Your task to perform on an android device: Show the shopping cart on ebay.com. Search for panasonic triple a on ebay.com, select the first entry, and add it to the cart. Image 0: 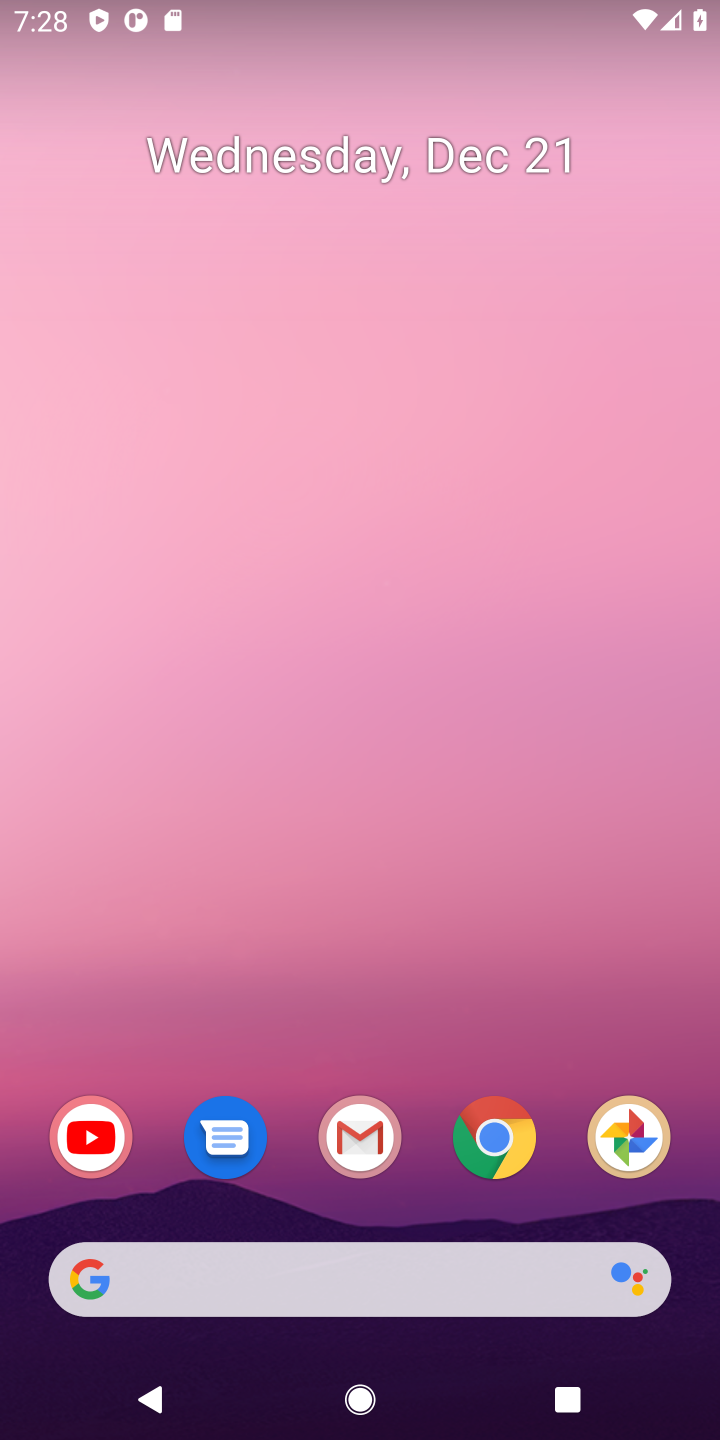
Step 0: click (487, 1150)
Your task to perform on an android device: Show the shopping cart on ebay.com. Search for panasonic triple a on ebay.com, select the first entry, and add it to the cart. Image 1: 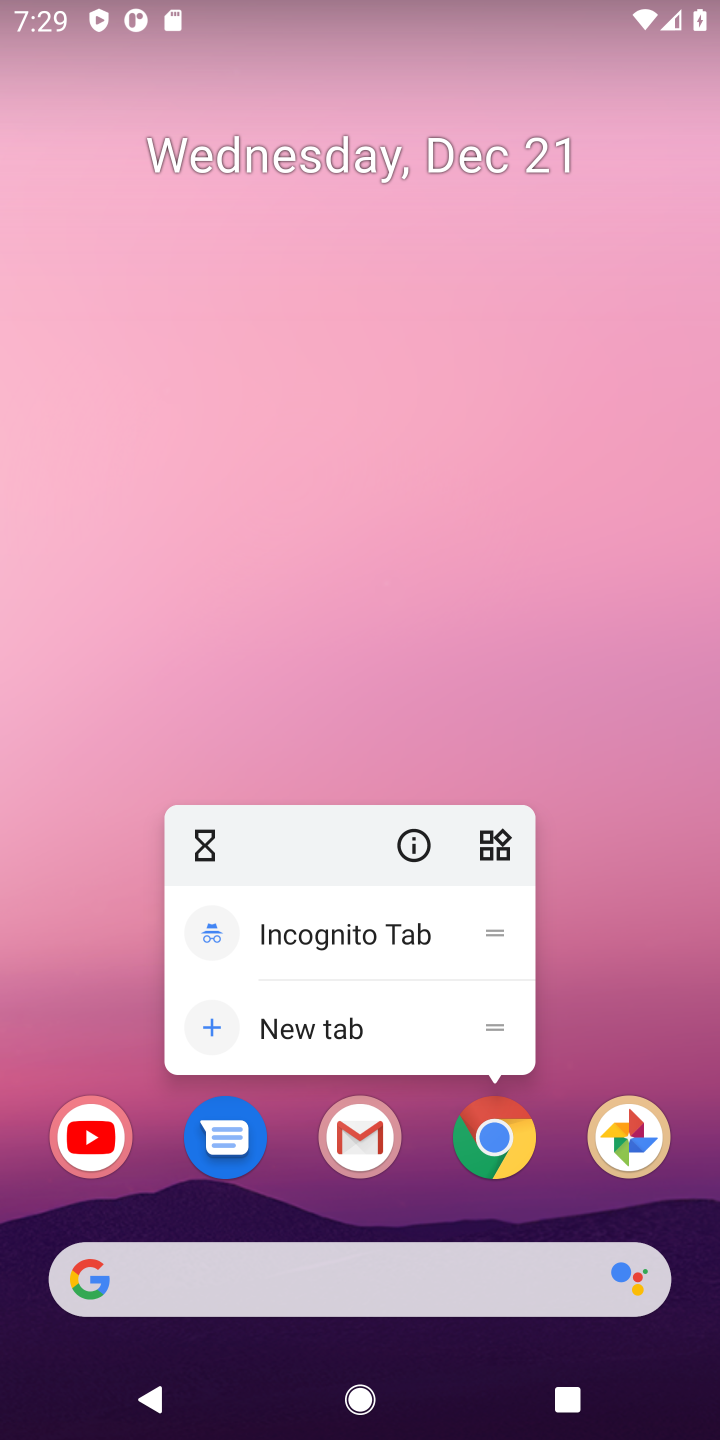
Step 1: click (488, 1150)
Your task to perform on an android device: Show the shopping cart on ebay.com. Search for panasonic triple a on ebay.com, select the first entry, and add it to the cart. Image 2: 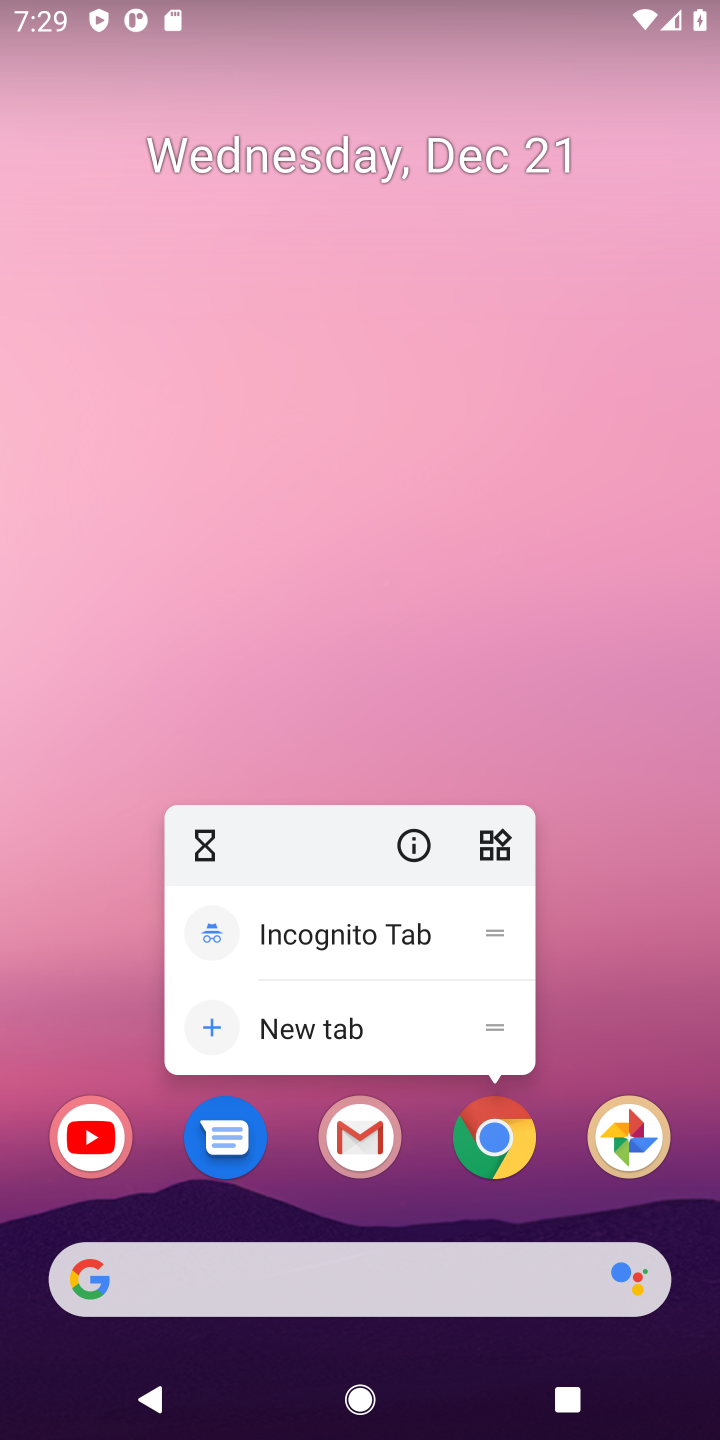
Step 2: click (486, 1157)
Your task to perform on an android device: Show the shopping cart on ebay.com. Search for panasonic triple a on ebay.com, select the first entry, and add it to the cart. Image 3: 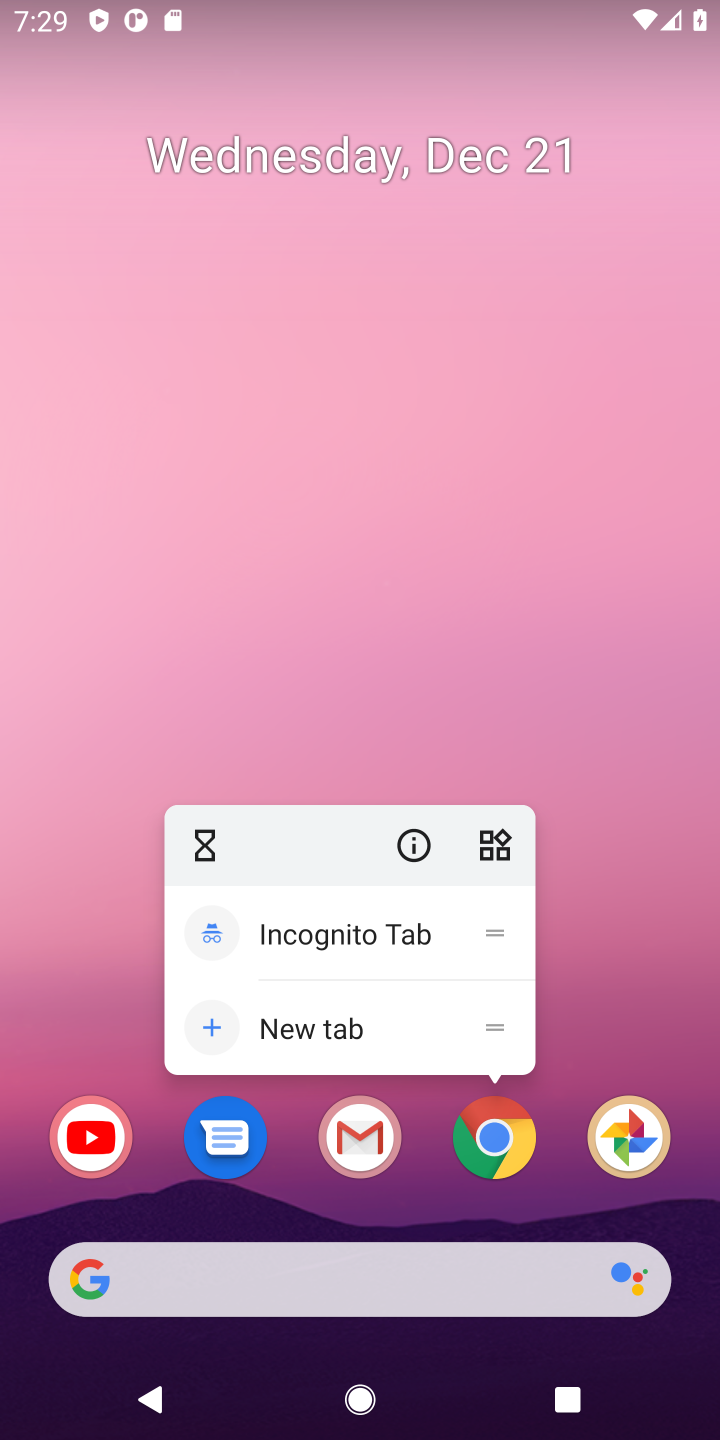
Step 3: click (518, 1135)
Your task to perform on an android device: Show the shopping cart on ebay.com. Search for panasonic triple a on ebay.com, select the first entry, and add it to the cart. Image 4: 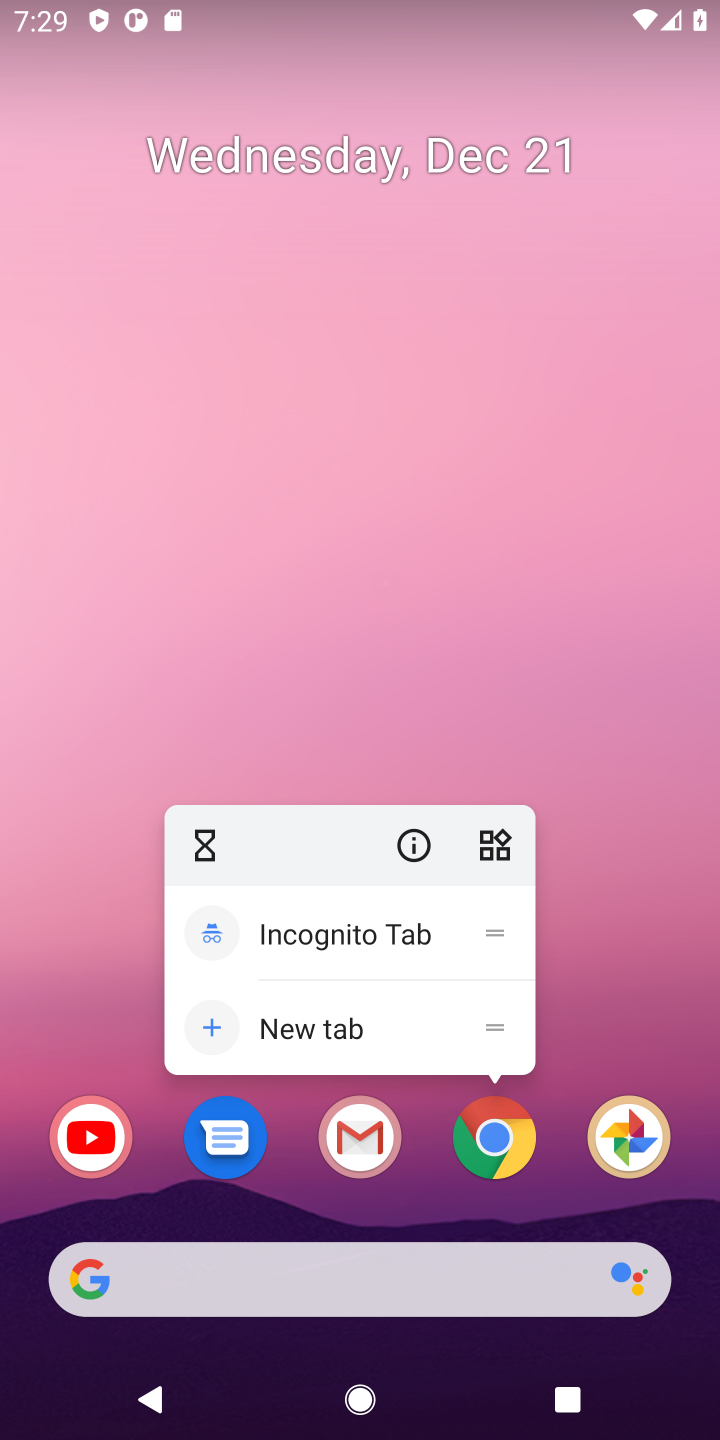
Step 4: click (497, 1137)
Your task to perform on an android device: Show the shopping cart on ebay.com. Search for panasonic triple a on ebay.com, select the first entry, and add it to the cart. Image 5: 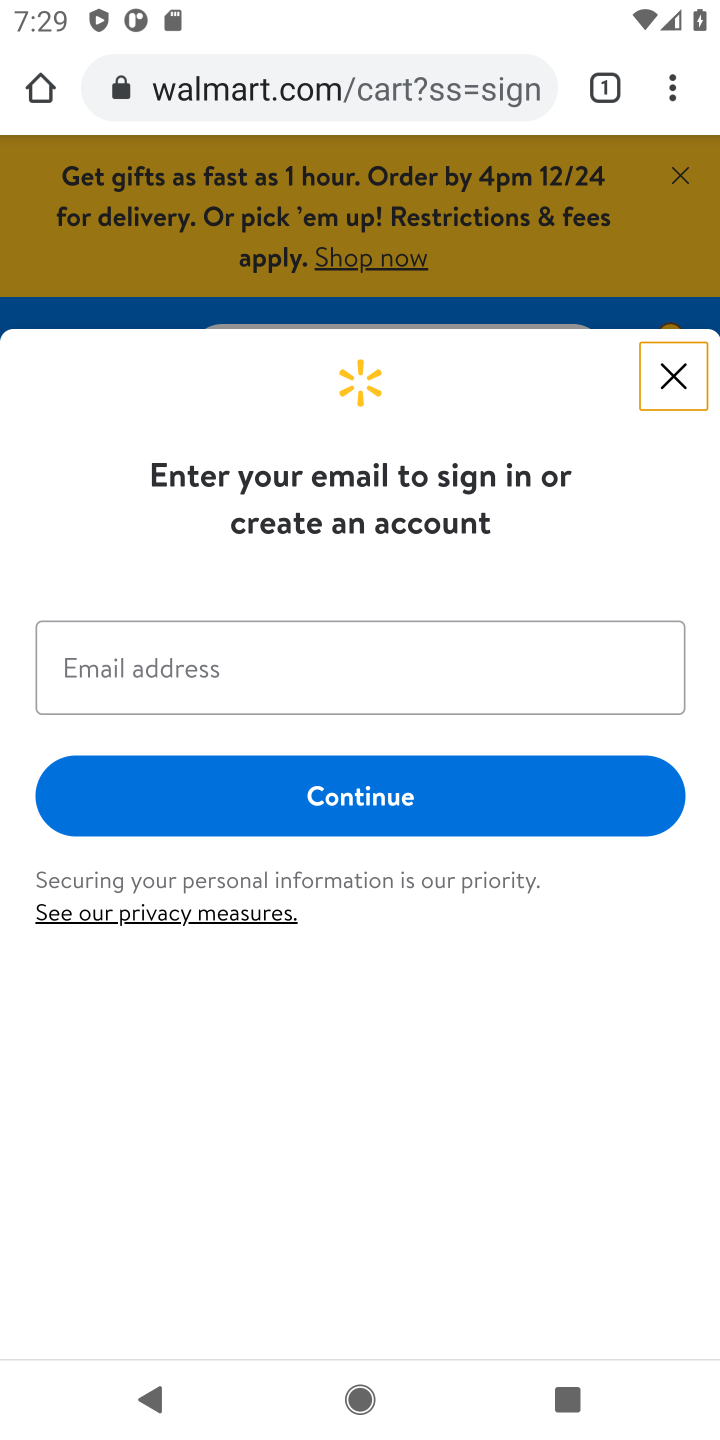
Step 5: click (199, 97)
Your task to perform on an android device: Show the shopping cart on ebay.com. Search for panasonic triple a on ebay.com, select the first entry, and add it to the cart. Image 6: 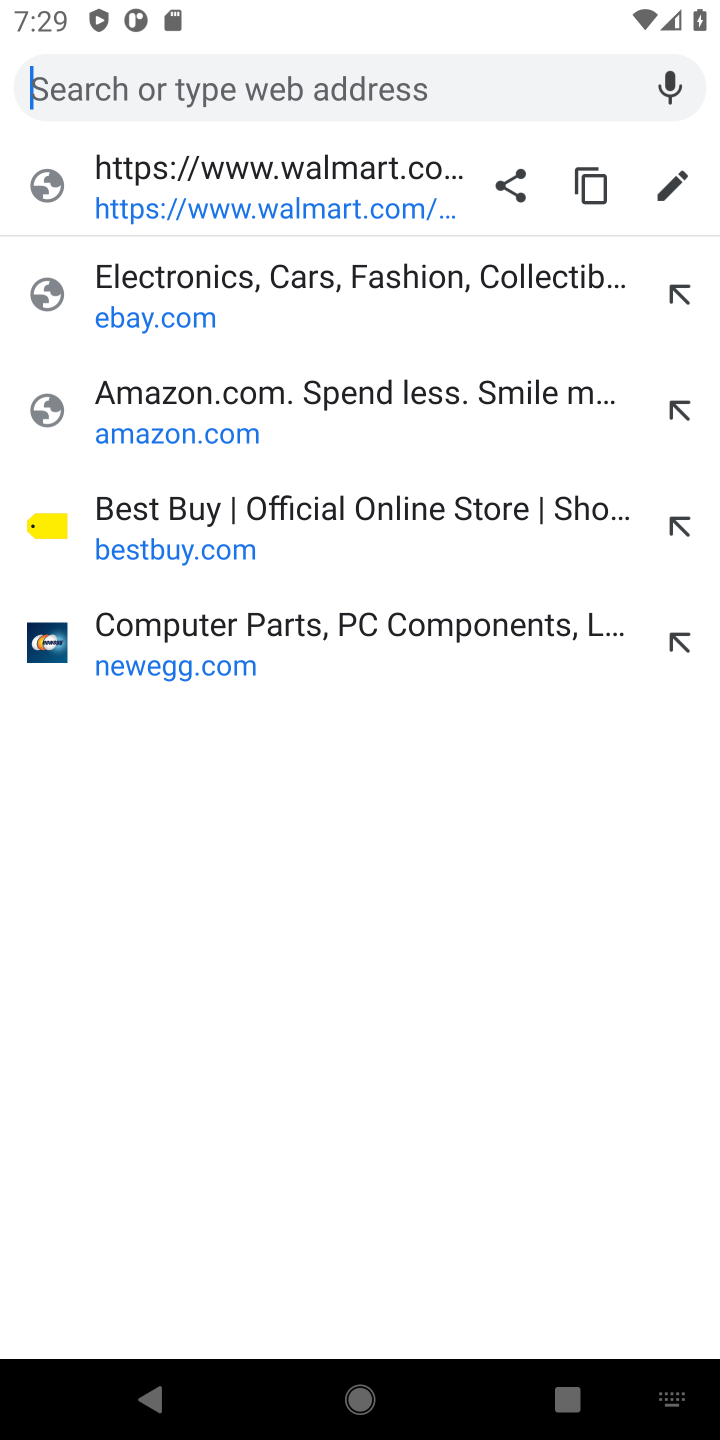
Step 6: click (139, 300)
Your task to perform on an android device: Show the shopping cart on ebay.com. Search for panasonic triple a on ebay.com, select the first entry, and add it to the cart. Image 7: 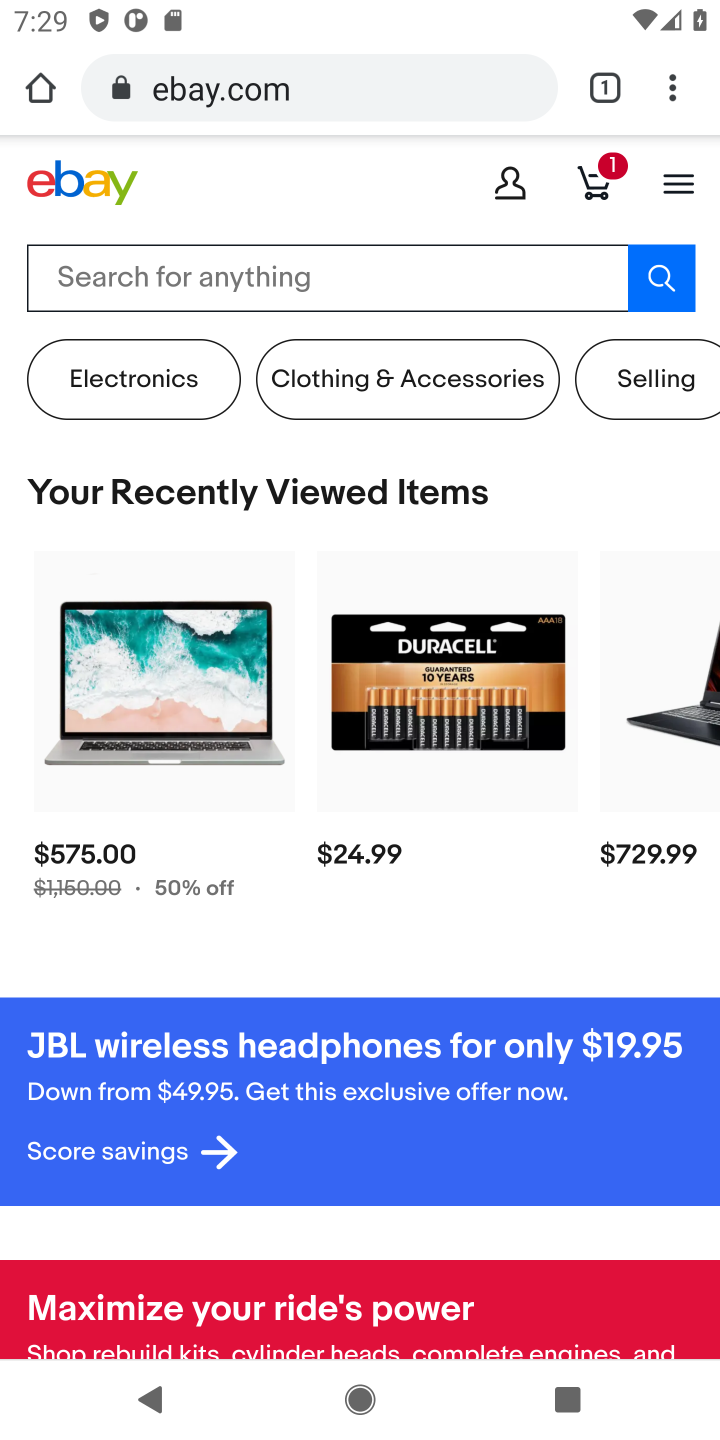
Step 7: click (599, 182)
Your task to perform on an android device: Show the shopping cart on ebay.com. Search for panasonic triple a on ebay.com, select the first entry, and add it to the cart. Image 8: 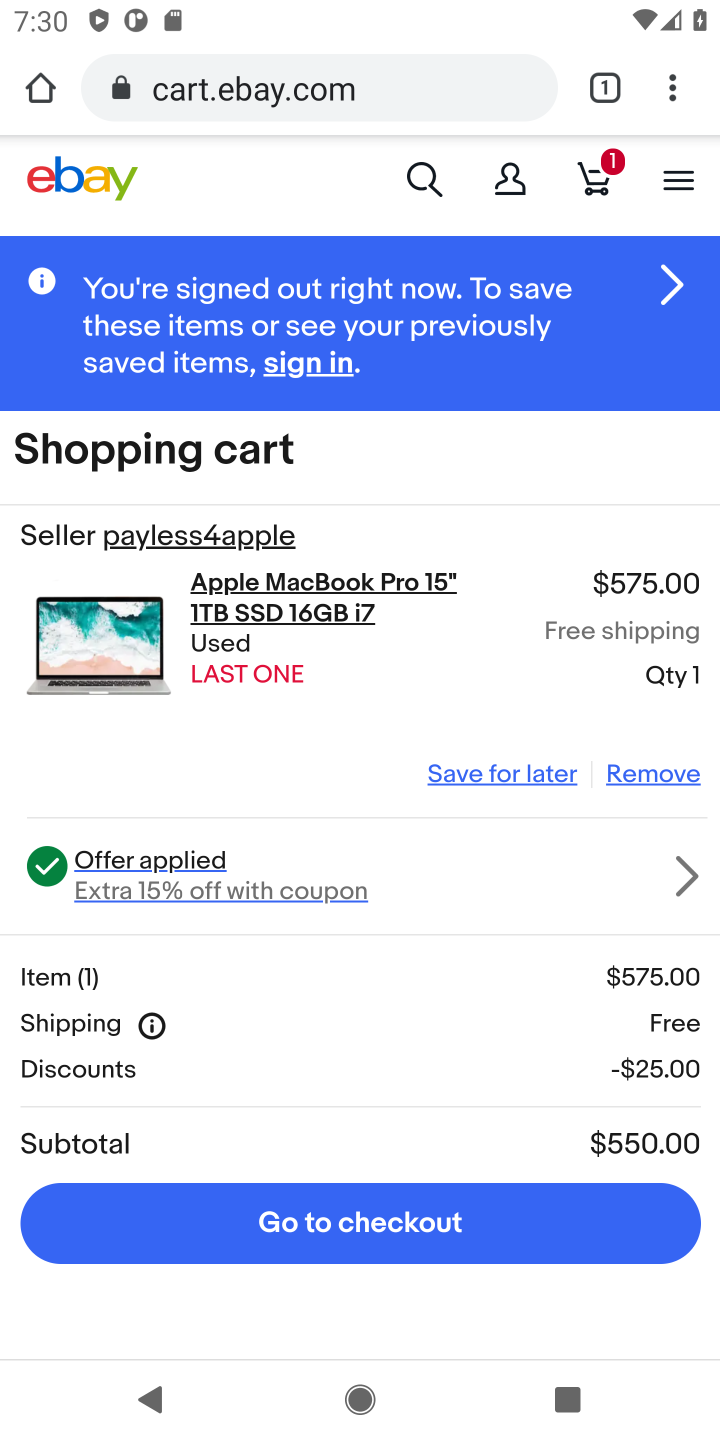
Step 8: click (427, 187)
Your task to perform on an android device: Show the shopping cart on ebay.com. Search for panasonic triple a on ebay.com, select the first entry, and add it to the cart. Image 9: 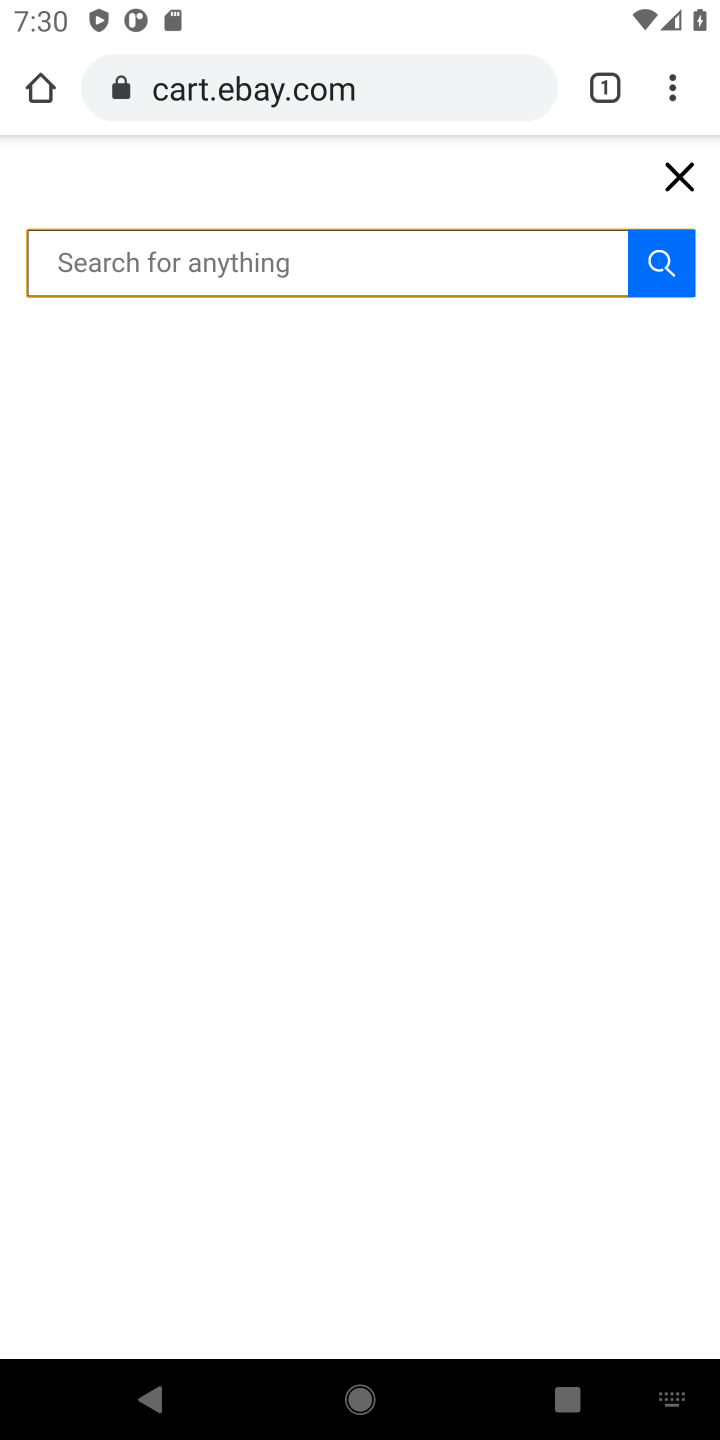
Step 9: type "panasonic triple a"
Your task to perform on an android device: Show the shopping cart on ebay.com. Search for panasonic triple a on ebay.com, select the first entry, and add it to the cart. Image 10: 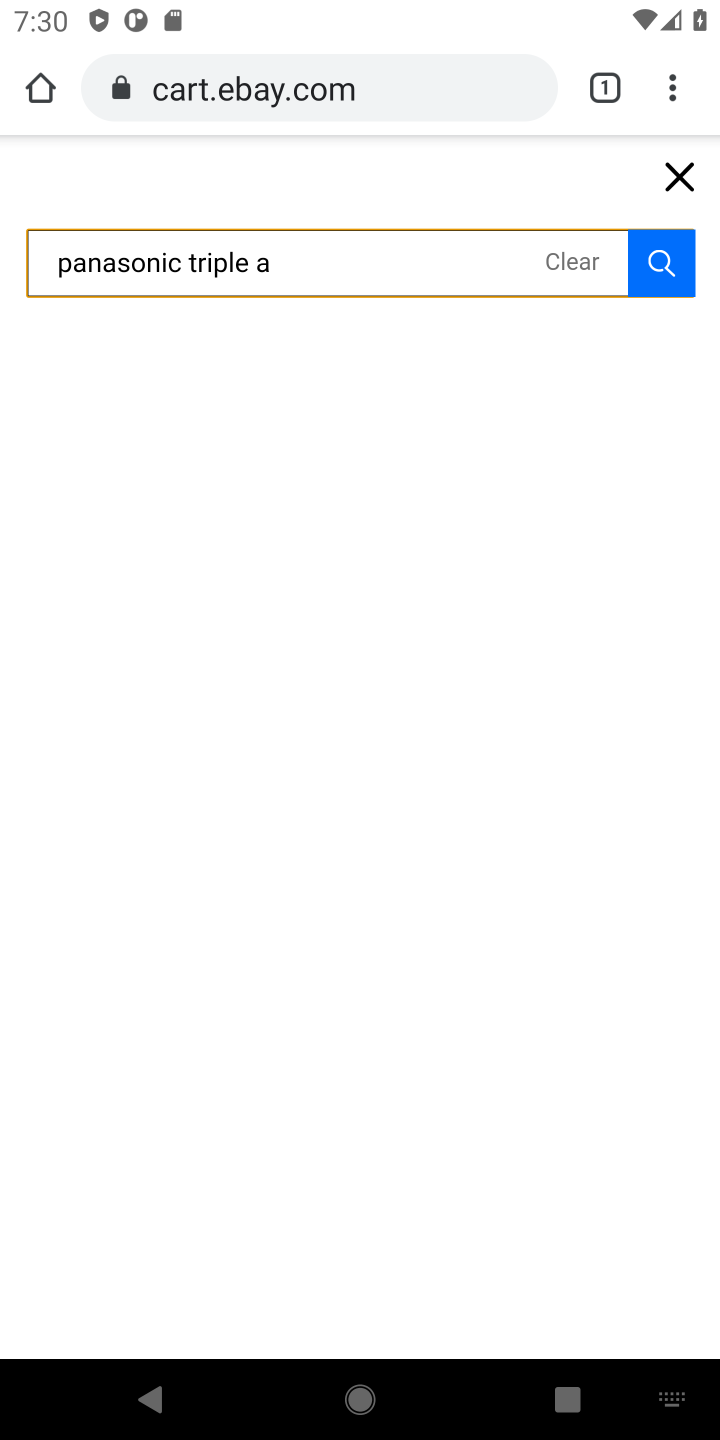
Step 10: click (660, 280)
Your task to perform on an android device: Show the shopping cart on ebay.com. Search for panasonic triple a on ebay.com, select the first entry, and add it to the cart. Image 11: 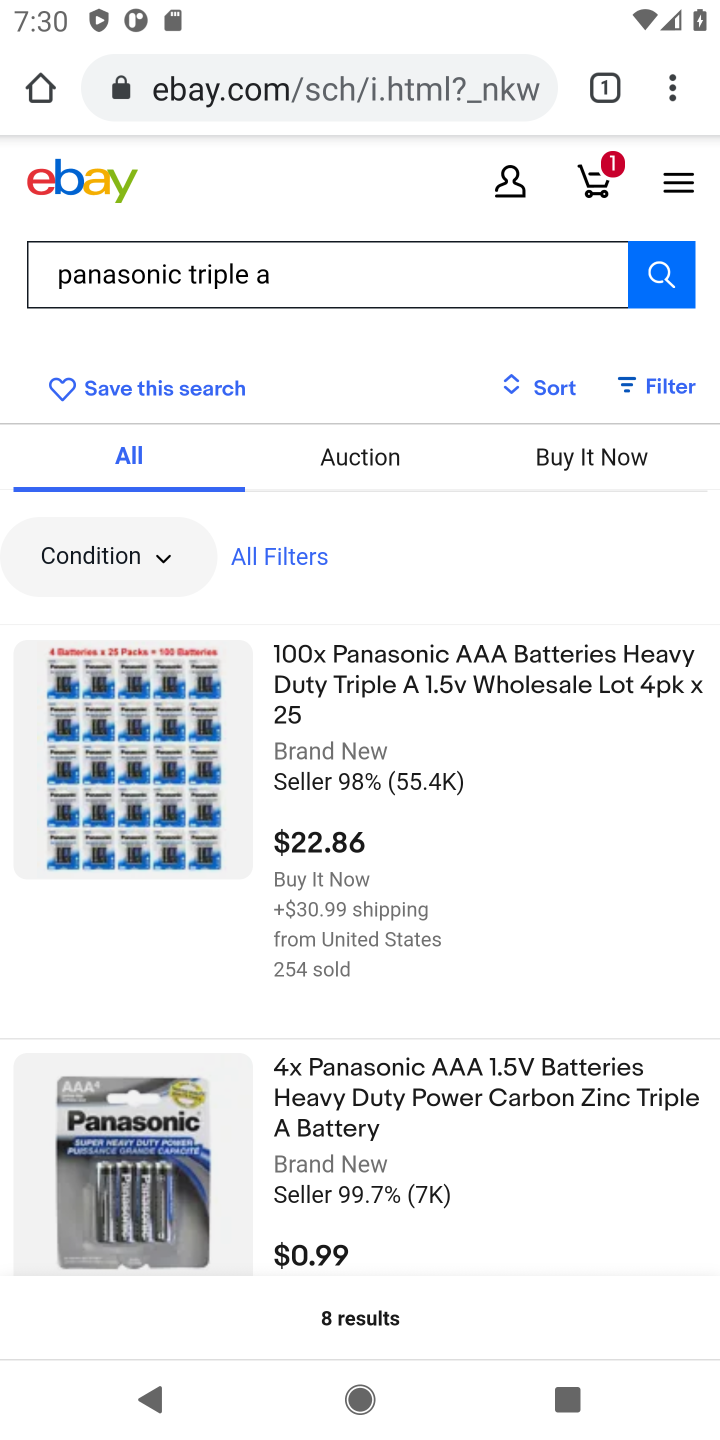
Step 11: click (335, 684)
Your task to perform on an android device: Show the shopping cart on ebay.com. Search for panasonic triple a on ebay.com, select the first entry, and add it to the cart. Image 12: 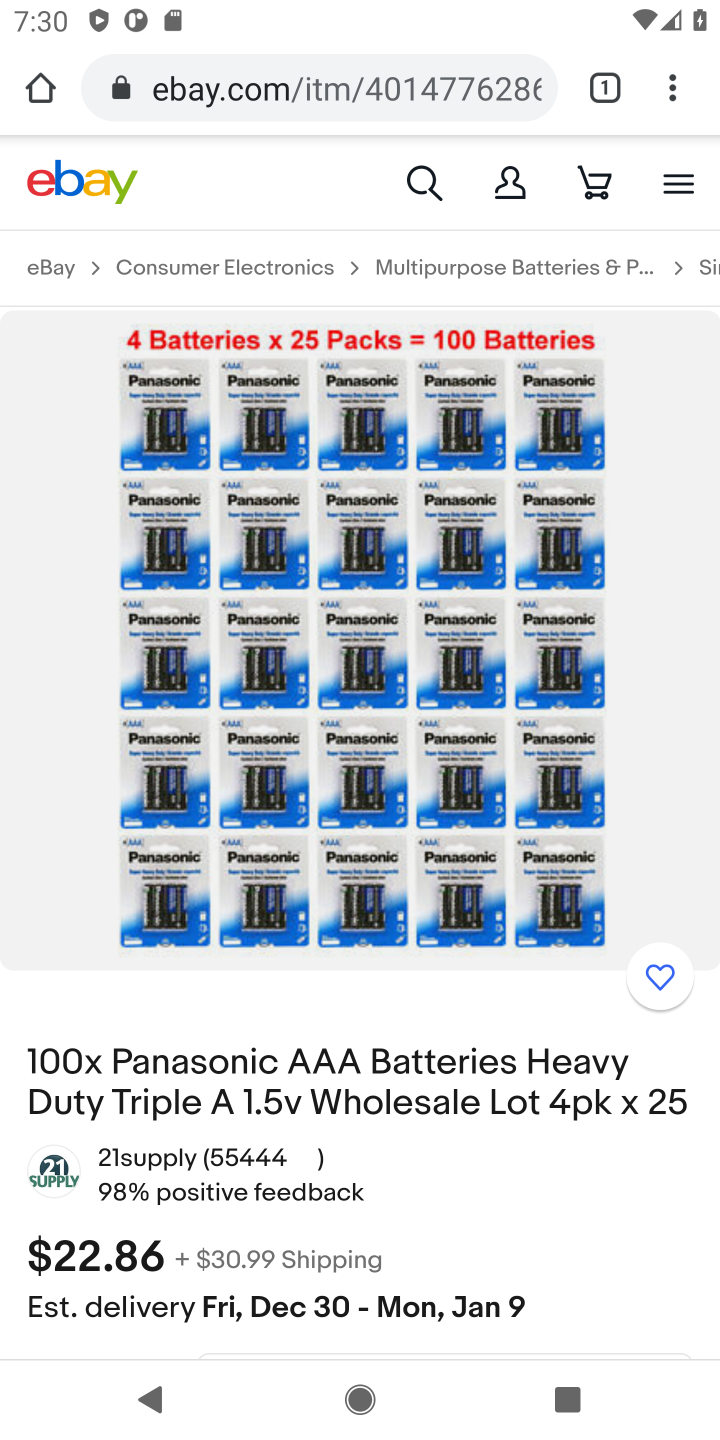
Step 12: drag from (377, 1085) to (423, 465)
Your task to perform on an android device: Show the shopping cart on ebay.com. Search for panasonic triple a on ebay.com, select the first entry, and add it to the cart. Image 13: 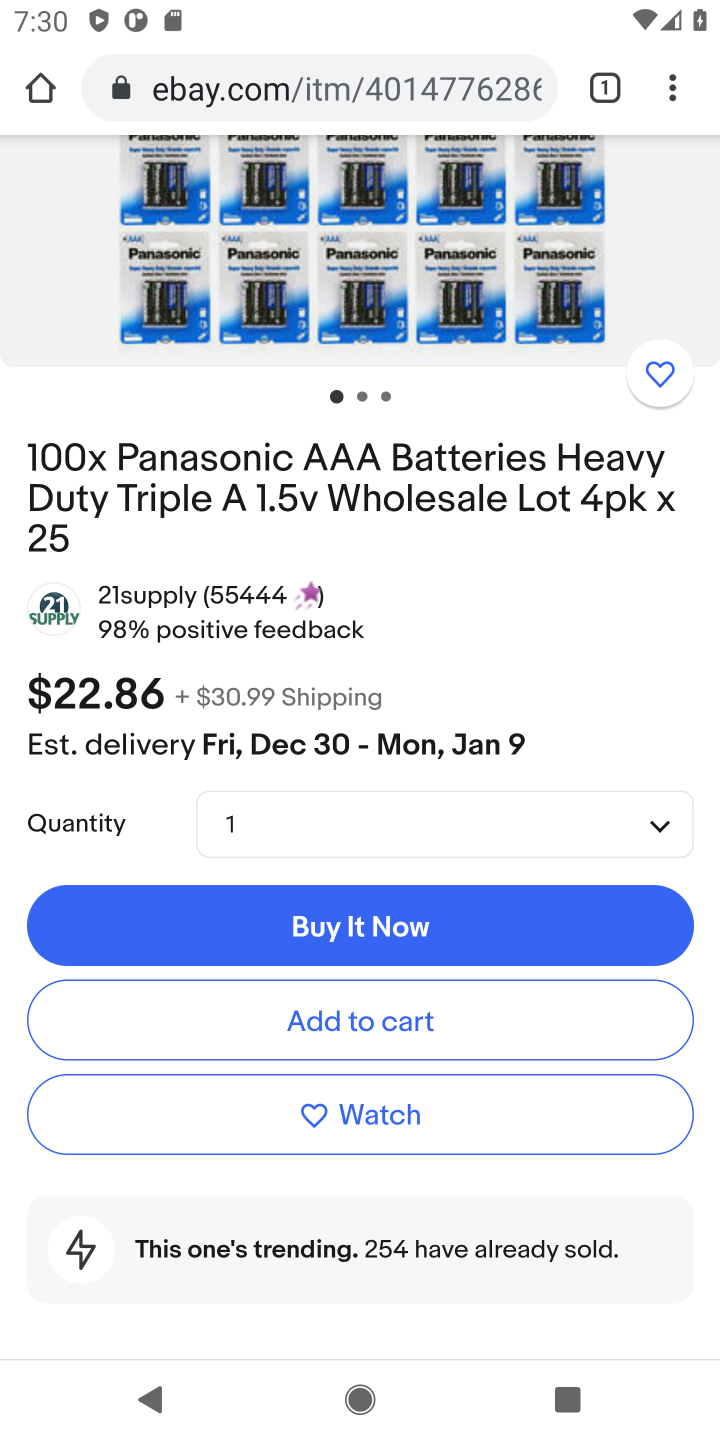
Step 13: click (350, 1027)
Your task to perform on an android device: Show the shopping cart on ebay.com. Search for panasonic triple a on ebay.com, select the first entry, and add it to the cart. Image 14: 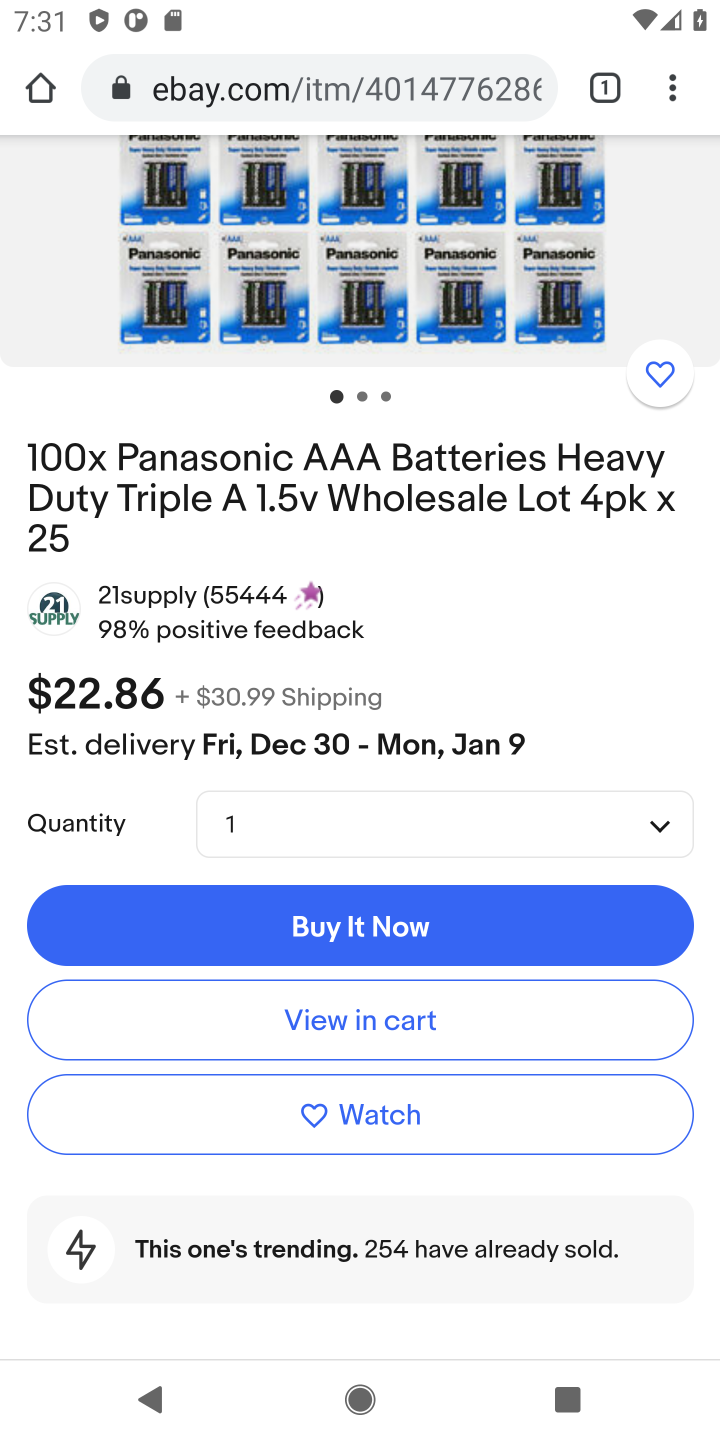
Step 14: task complete